Your task to perform on an android device: change the clock display to digital Image 0: 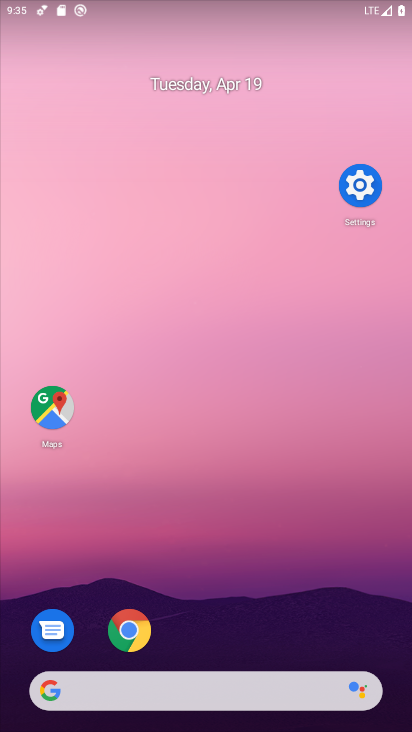
Step 0: drag from (248, 643) to (273, 92)
Your task to perform on an android device: change the clock display to digital Image 1: 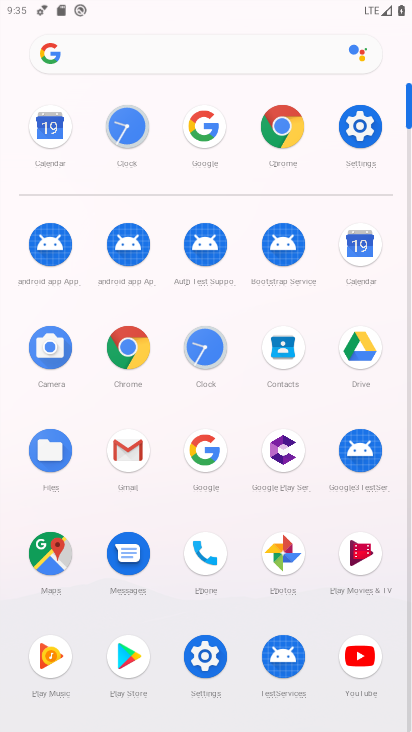
Step 1: click (196, 355)
Your task to perform on an android device: change the clock display to digital Image 2: 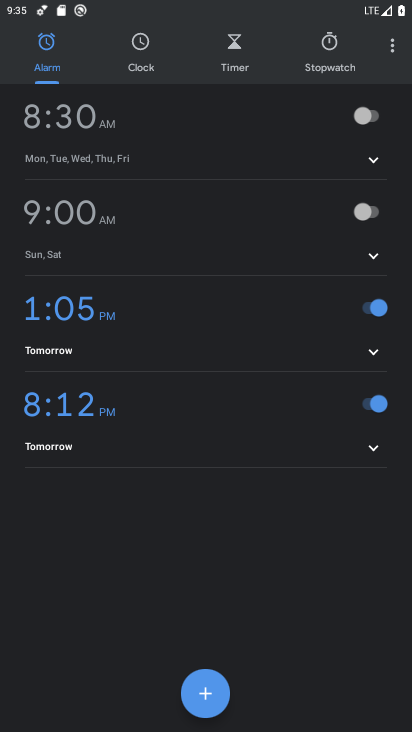
Step 2: click (398, 47)
Your task to perform on an android device: change the clock display to digital Image 3: 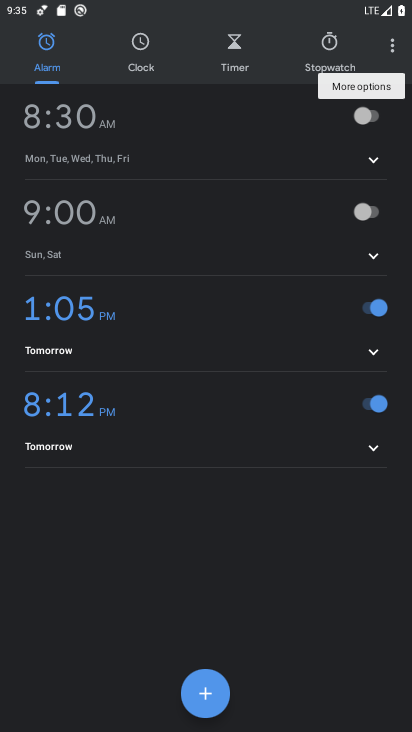
Step 3: click (397, 47)
Your task to perform on an android device: change the clock display to digital Image 4: 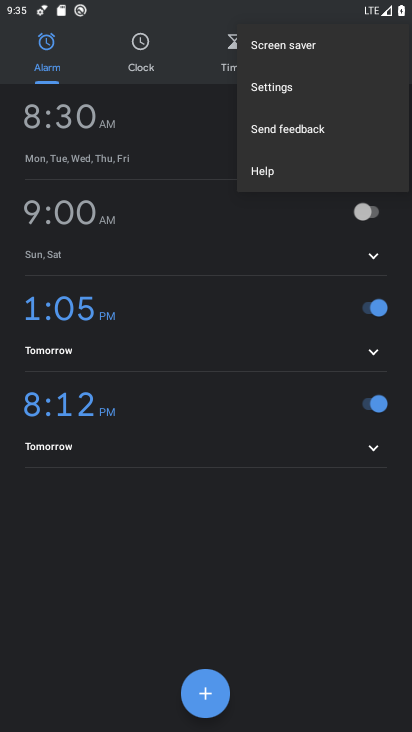
Step 4: click (333, 90)
Your task to perform on an android device: change the clock display to digital Image 5: 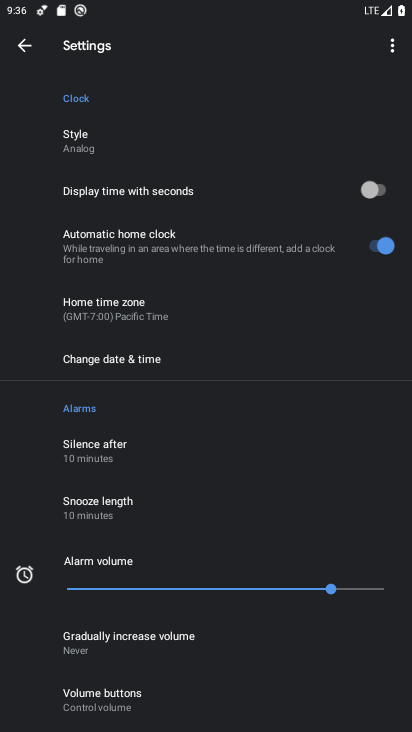
Step 5: click (134, 144)
Your task to perform on an android device: change the clock display to digital Image 6: 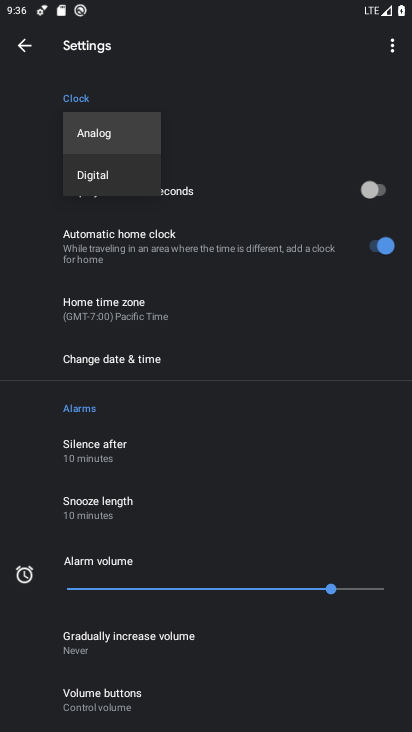
Step 6: click (139, 176)
Your task to perform on an android device: change the clock display to digital Image 7: 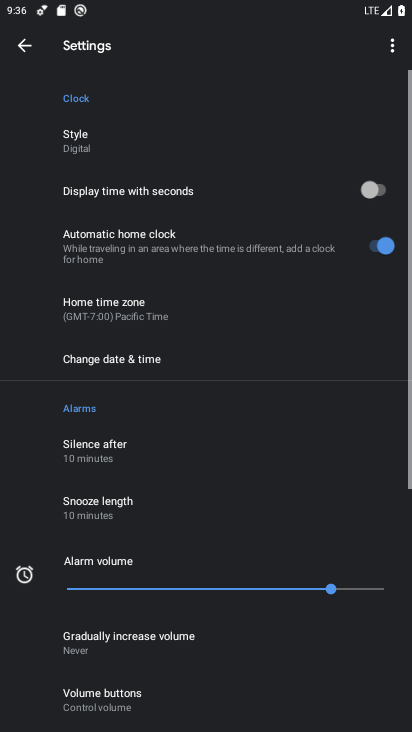
Step 7: task complete